Your task to perform on an android device: Go to privacy settings Image 0: 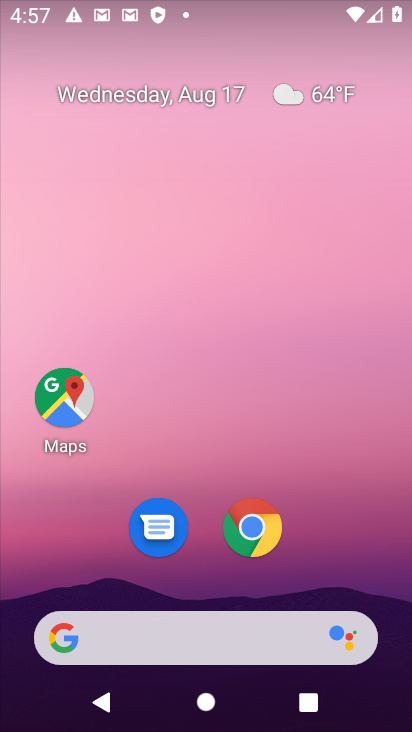
Step 0: drag from (175, 613) to (234, 93)
Your task to perform on an android device: Go to privacy settings Image 1: 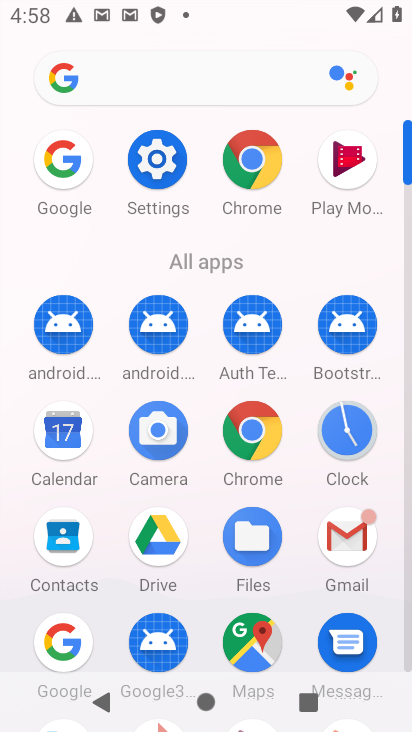
Step 1: click (155, 169)
Your task to perform on an android device: Go to privacy settings Image 2: 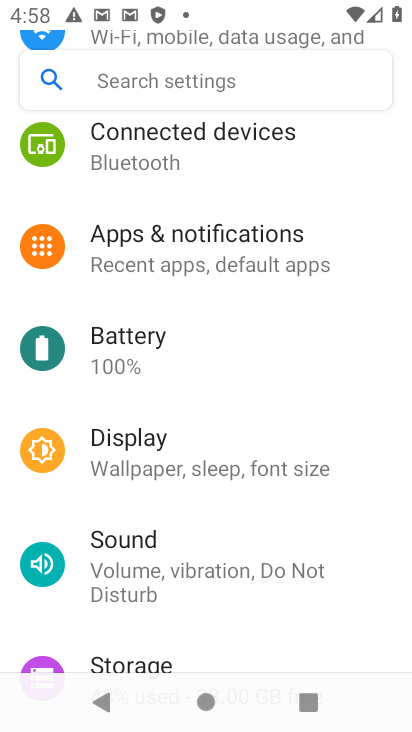
Step 2: drag from (158, 661) to (147, 294)
Your task to perform on an android device: Go to privacy settings Image 3: 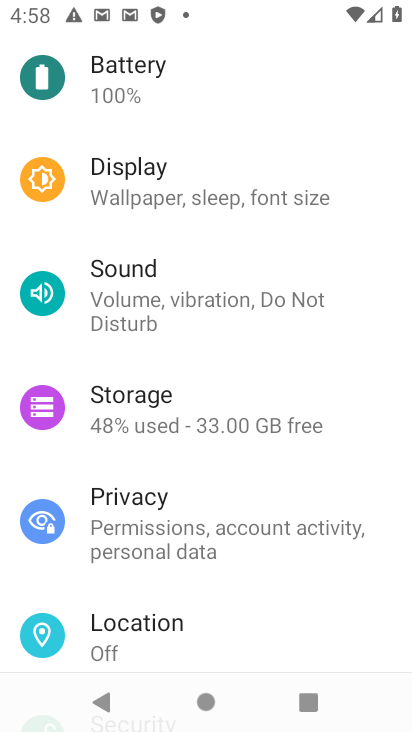
Step 3: click (128, 518)
Your task to perform on an android device: Go to privacy settings Image 4: 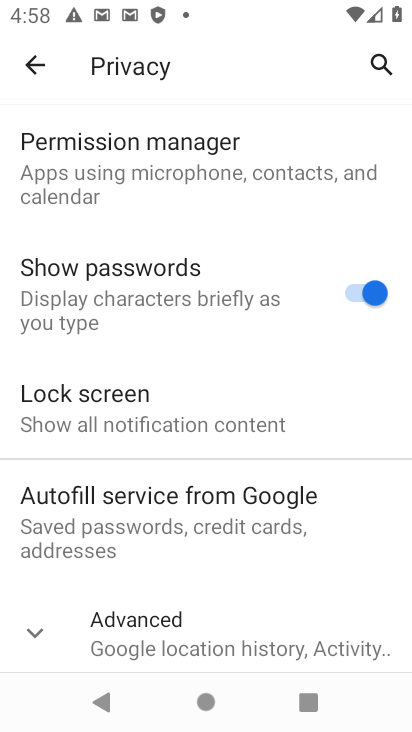
Step 4: drag from (204, 625) to (204, 294)
Your task to perform on an android device: Go to privacy settings Image 5: 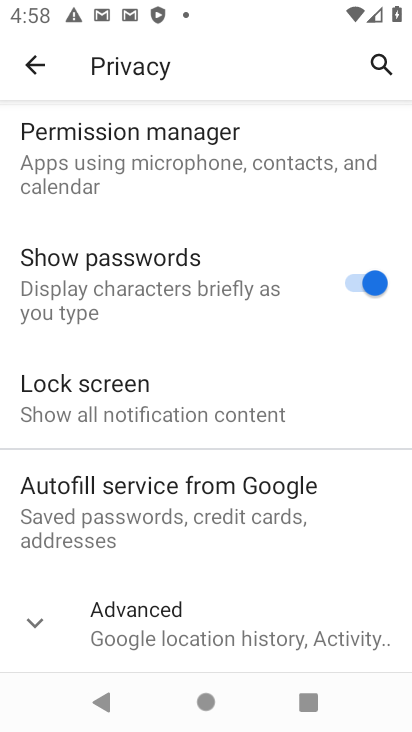
Step 5: click (150, 632)
Your task to perform on an android device: Go to privacy settings Image 6: 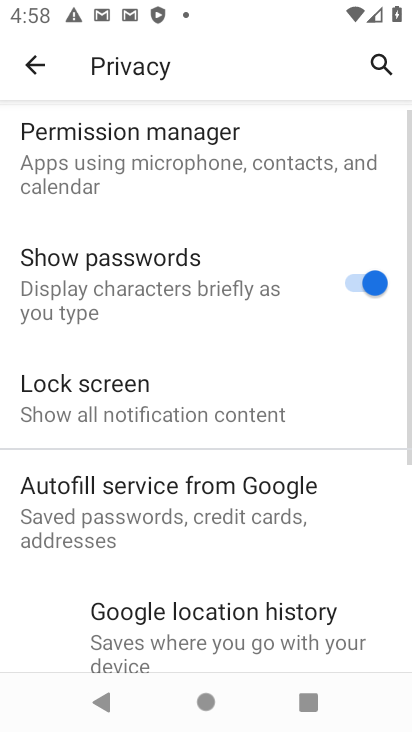
Step 6: task complete